Your task to perform on an android device: Do I have any events today? Image 0: 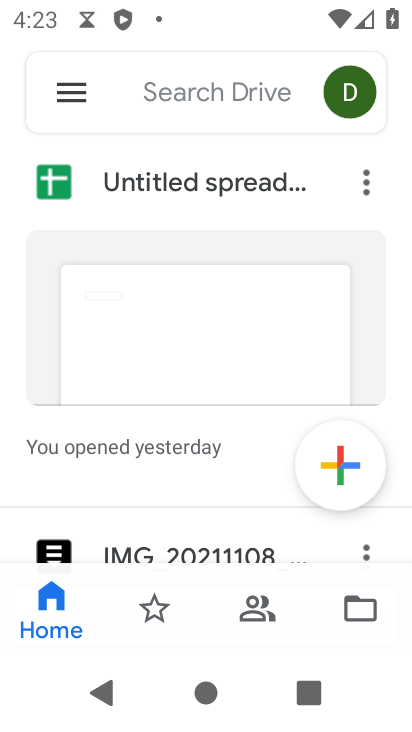
Step 0: press home button
Your task to perform on an android device: Do I have any events today? Image 1: 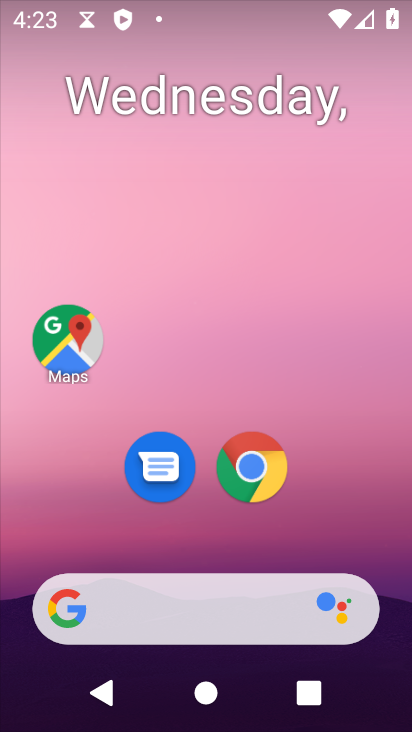
Step 1: drag from (382, 511) to (328, 6)
Your task to perform on an android device: Do I have any events today? Image 2: 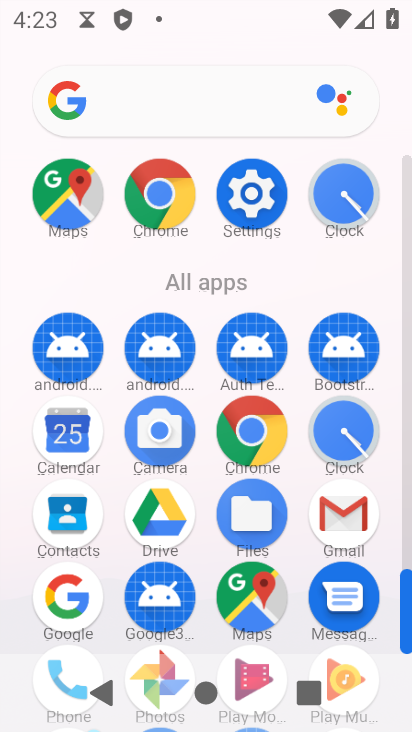
Step 2: click (60, 456)
Your task to perform on an android device: Do I have any events today? Image 3: 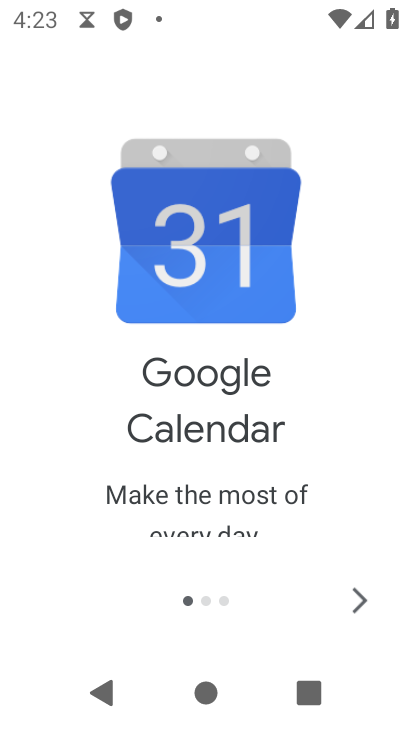
Step 3: click (361, 602)
Your task to perform on an android device: Do I have any events today? Image 4: 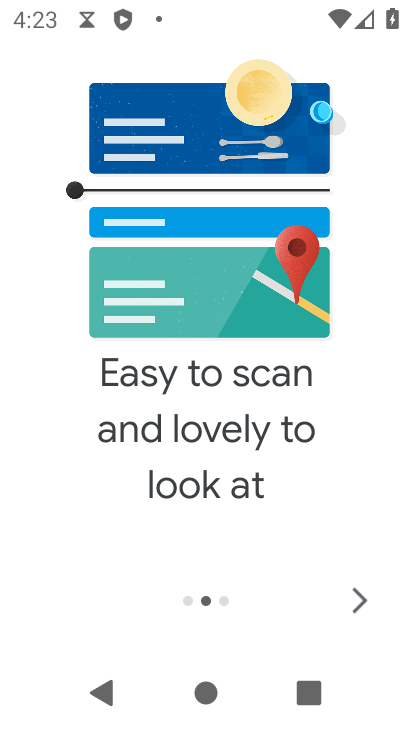
Step 4: click (359, 591)
Your task to perform on an android device: Do I have any events today? Image 5: 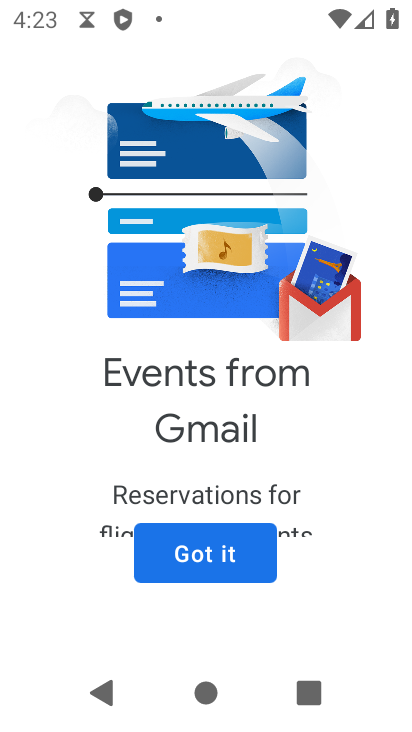
Step 5: click (95, 554)
Your task to perform on an android device: Do I have any events today? Image 6: 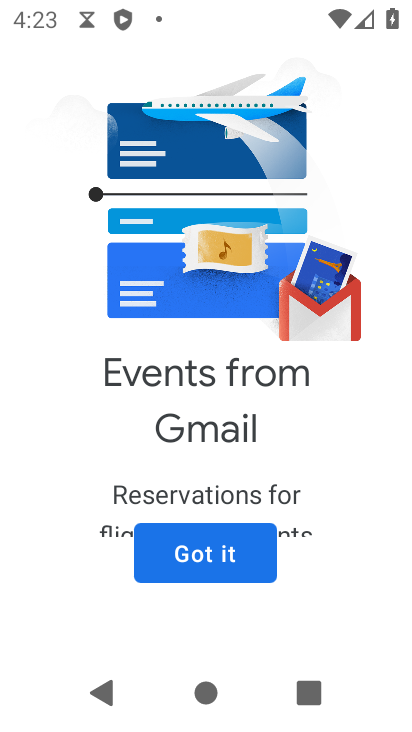
Step 6: click (166, 552)
Your task to perform on an android device: Do I have any events today? Image 7: 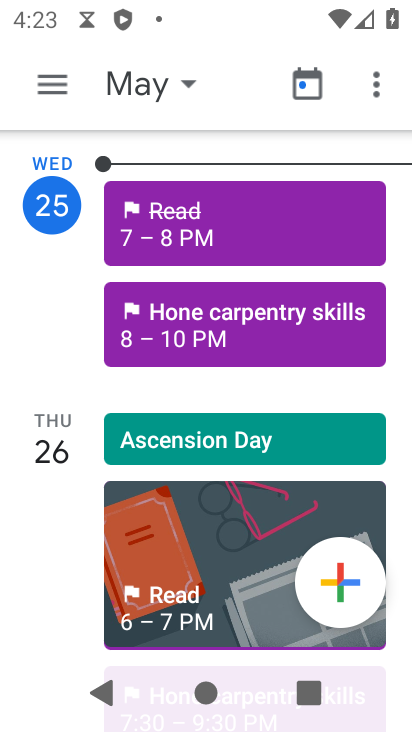
Step 7: click (154, 90)
Your task to perform on an android device: Do I have any events today? Image 8: 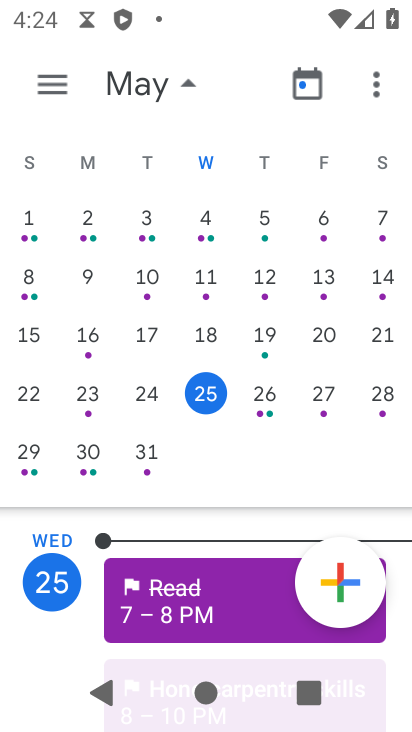
Step 8: task complete